Your task to perform on an android device: Open calendar and show me the fourth week of next month Image 0: 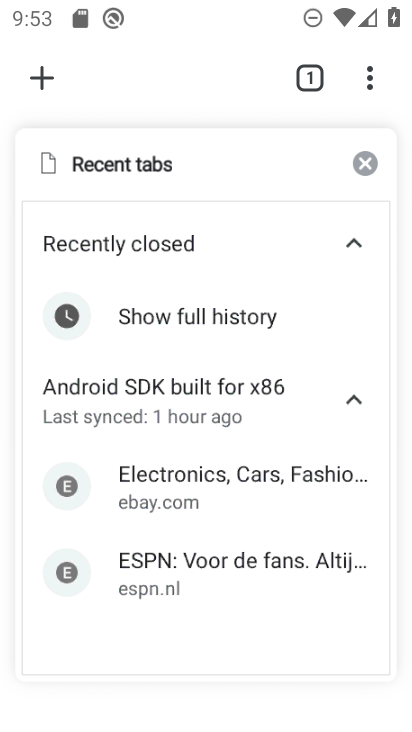
Step 0: press home button
Your task to perform on an android device: Open calendar and show me the fourth week of next month Image 1: 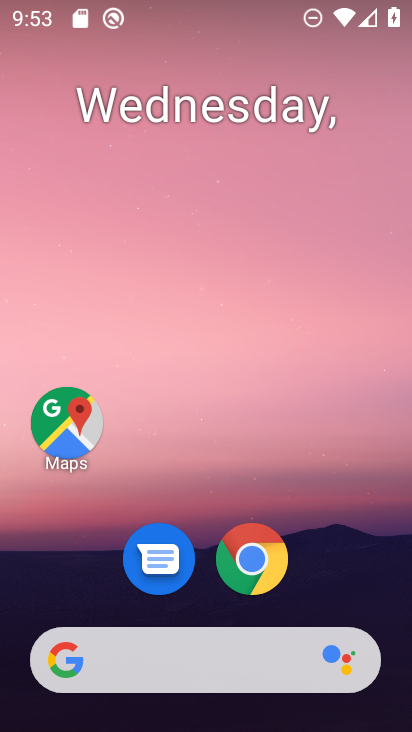
Step 1: drag from (361, 591) to (377, 295)
Your task to perform on an android device: Open calendar and show me the fourth week of next month Image 2: 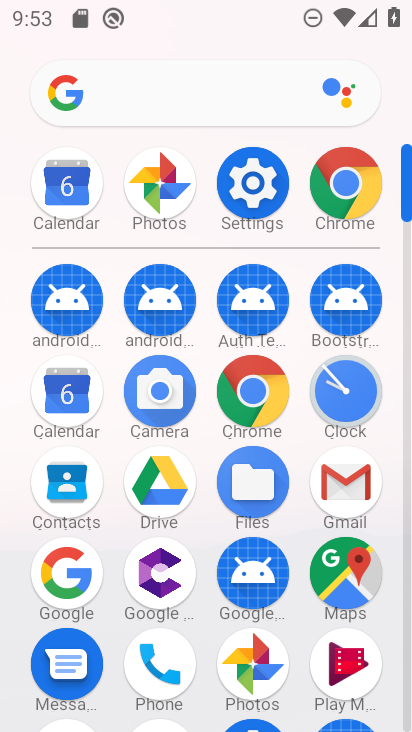
Step 2: click (93, 402)
Your task to perform on an android device: Open calendar and show me the fourth week of next month Image 3: 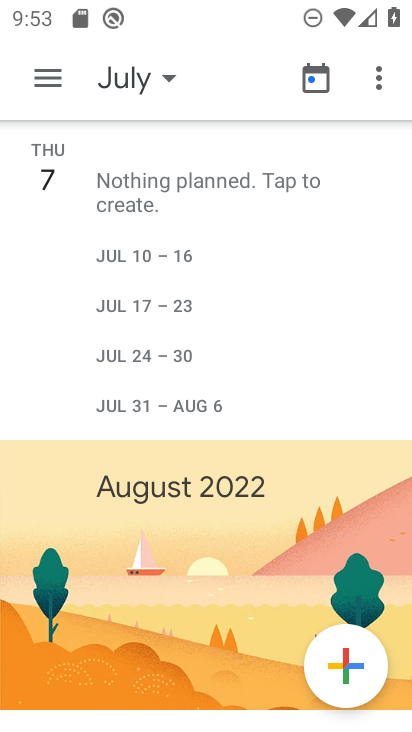
Step 3: click (166, 87)
Your task to perform on an android device: Open calendar and show me the fourth week of next month Image 4: 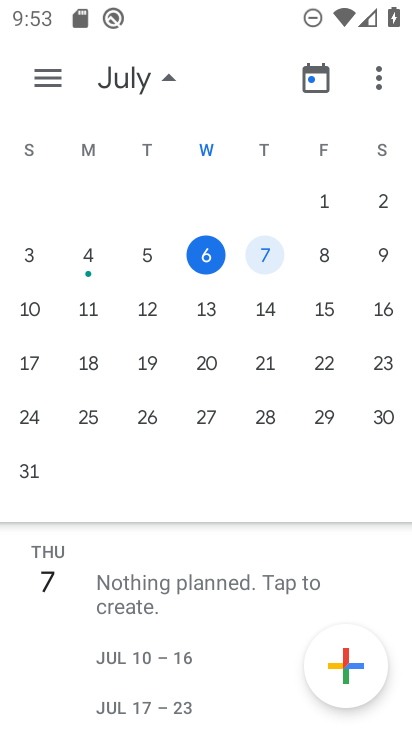
Step 4: drag from (392, 224) to (28, 189)
Your task to perform on an android device: Open calendar and show me the fourth week of next month Image 5: 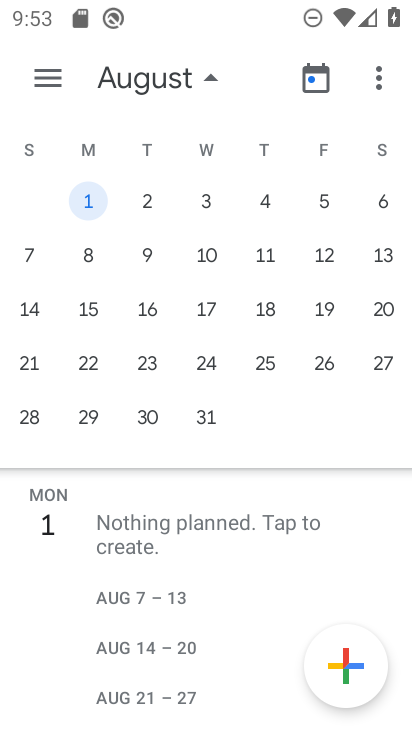
Step 5: click (94, 366)
Your task to perform on an android device: Open calendar and show me the fourth week of next month Image 6: 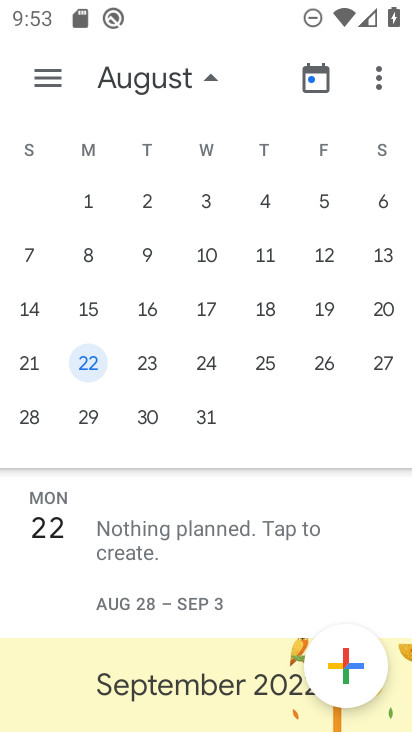
Step 6: task complete